Your task to perform on an android device: open app "Fetch Rewards" Image 0: 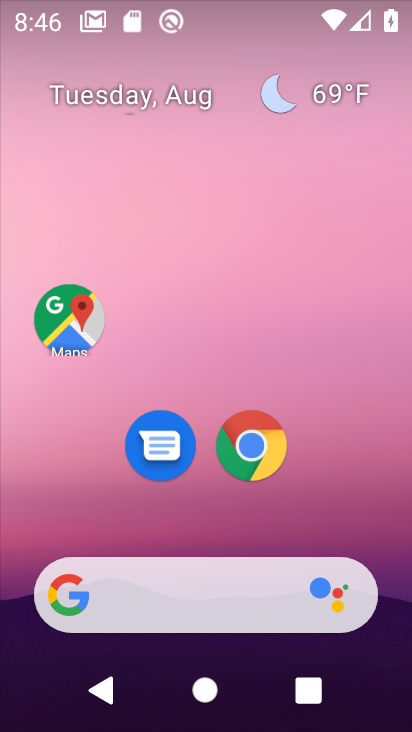
Step 0: drag from (212, 551) to (261, 9)
Your task to perform on an android device: open app "Fetch Rewards" Image 1: 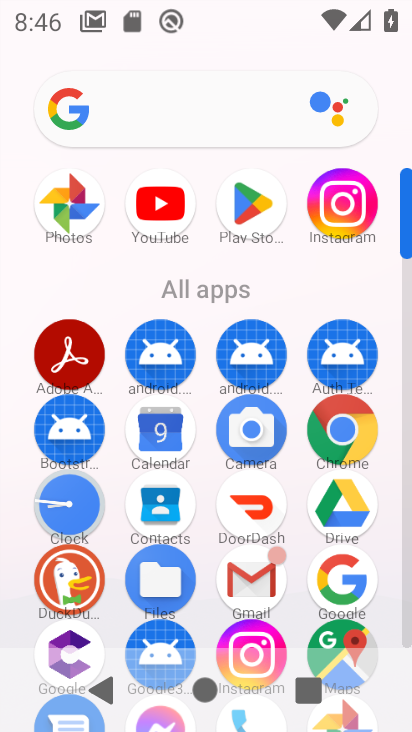
Step 1: click (256, 203)
Your task to perform on an android device: open app "Fetch Rewards" Image 2: 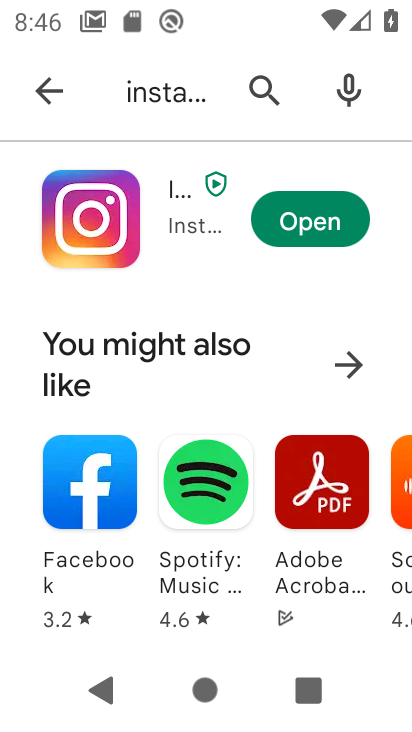
Step 2: click (34, 98)
Your task to perform on an android device: open app "Fetch Rewards" Image 3: 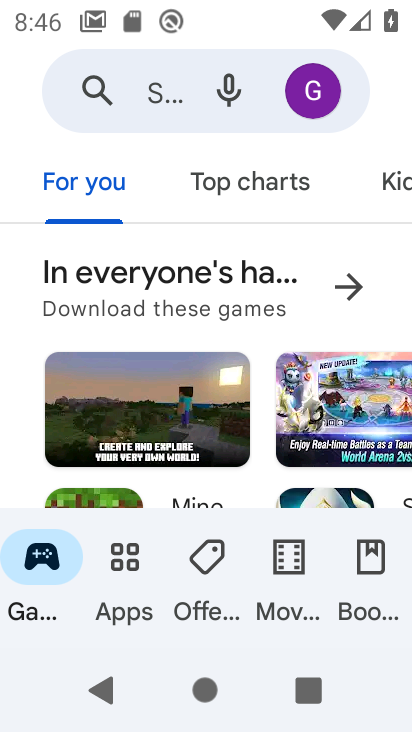
Step 3: click (150, 97)
Your task to perform on an android device: open app "Fetch Rewards" Image 4: 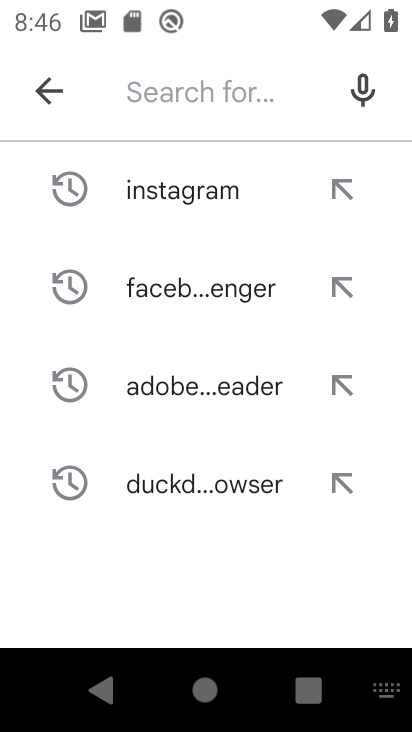
Step 4: type "Fetch Rewards"
Your task to perform on an android device: open app "Fetch Rewards" Image 5: 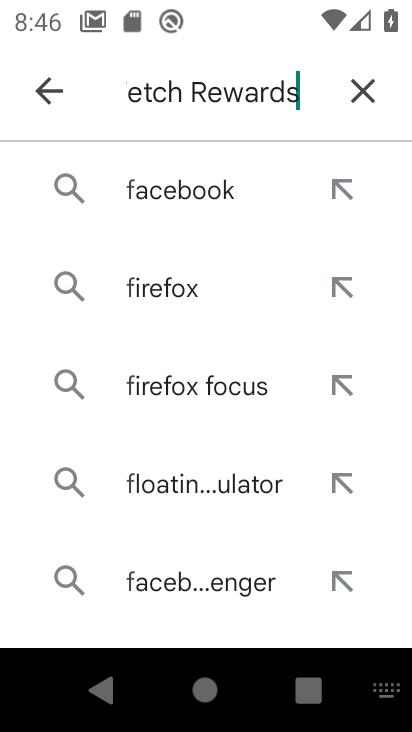
Step 5: type ""
Your task to perform on an android device: open app "Fetch Rewards" Image 6: 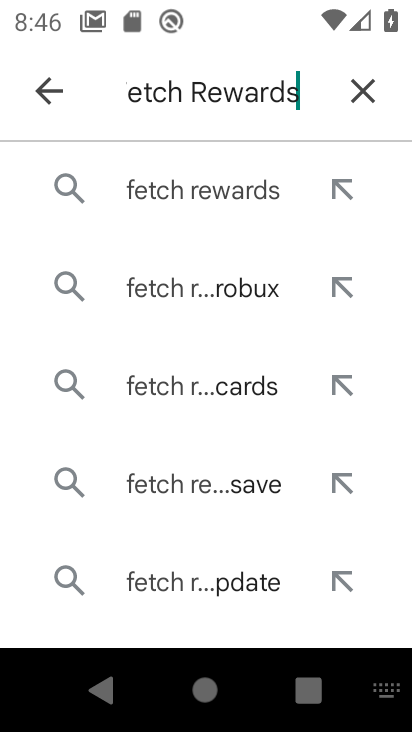
Step 6: click (157, 191)
Your task to perform on an android device: open app "Fetch Rewards" Image 7: 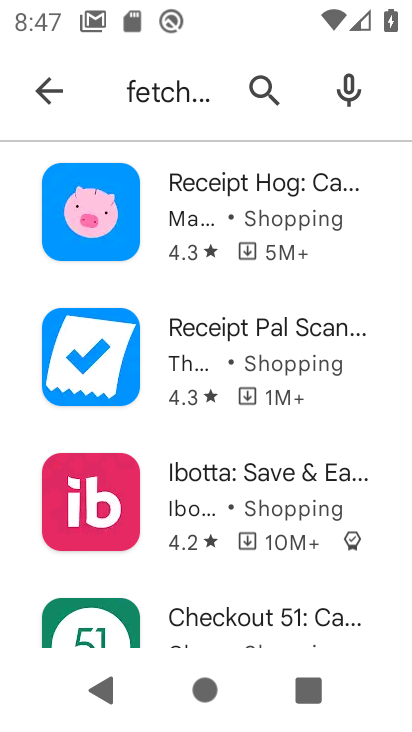
Step 7: task complete